Your task to perform on an android device: toggle pop-ups in chrome Image 0: 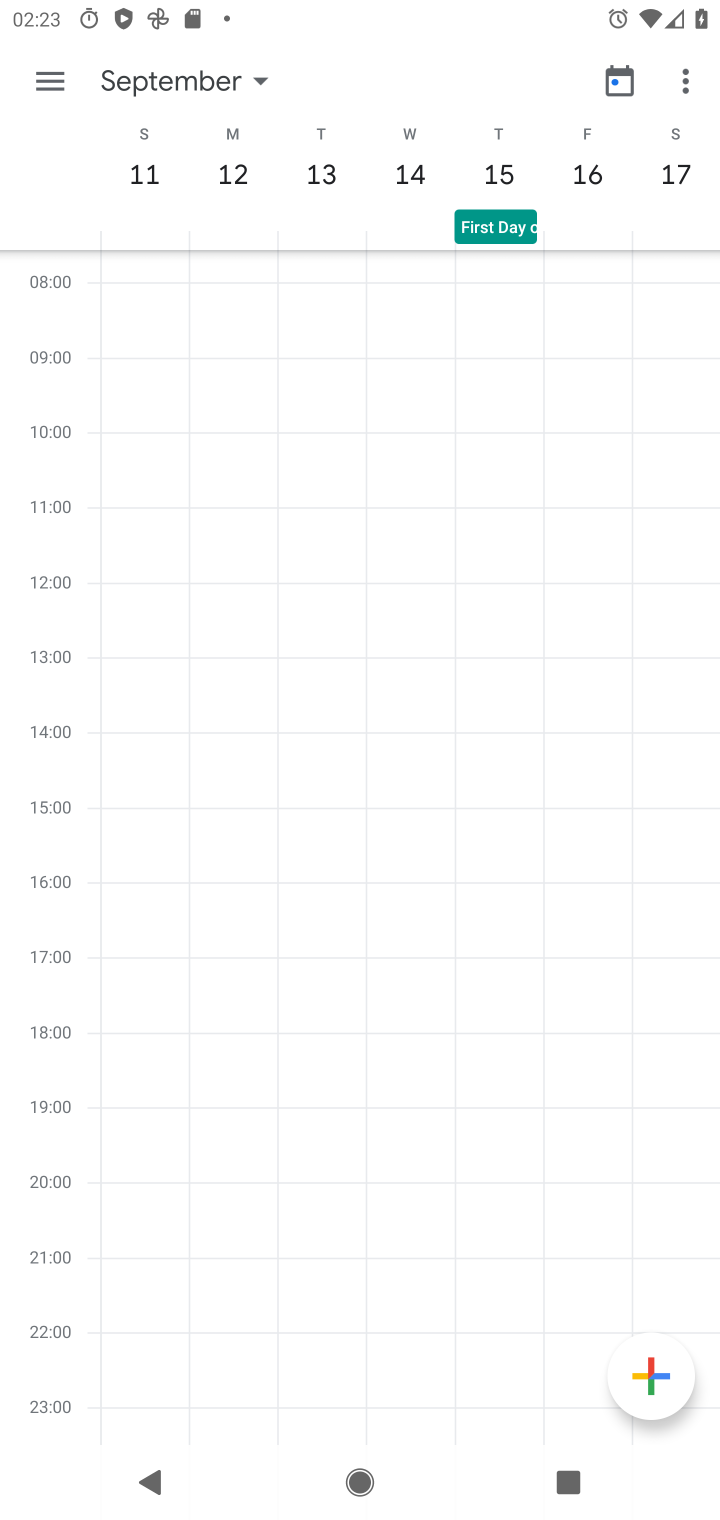
Step 0: press home button
Your task to perform on an android device: toggle pop-ups in chrome Image 1: 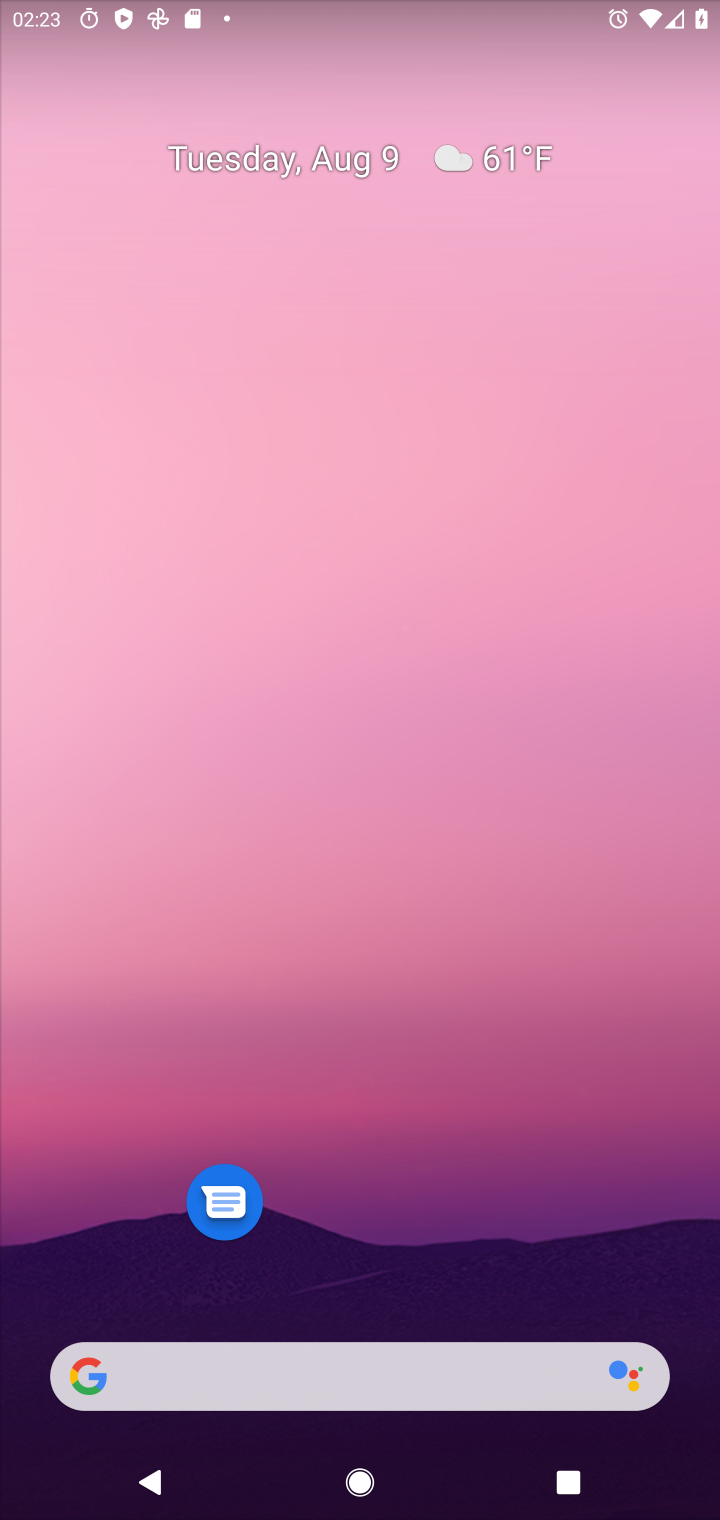
Step 1: drag from (447, 1367) to (555, 32)
Your task to perform on an android device: toggle pop-ups in chrome Image 2: 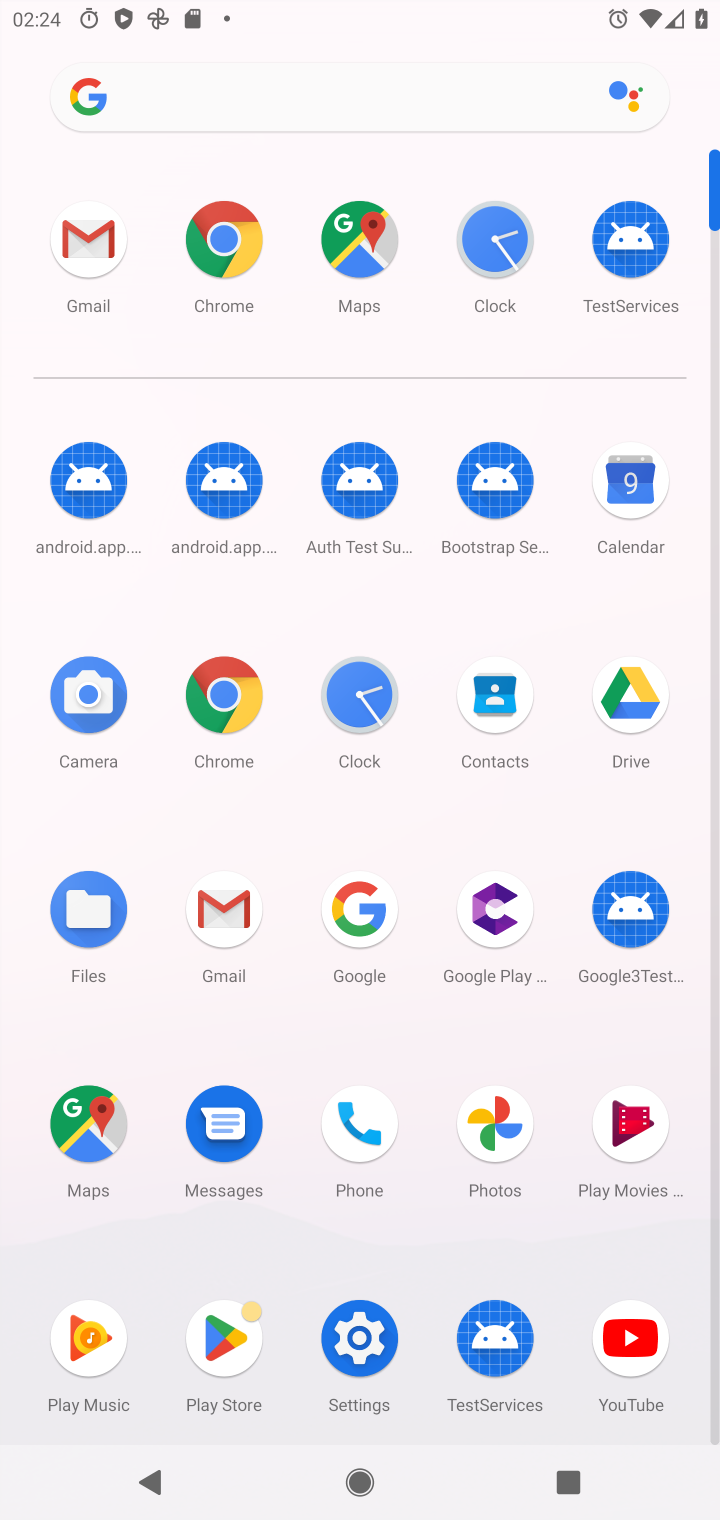
Step 2: click (223, 717)
Your task to perform on an android device: toggle pop-ups in chrome Image 3: 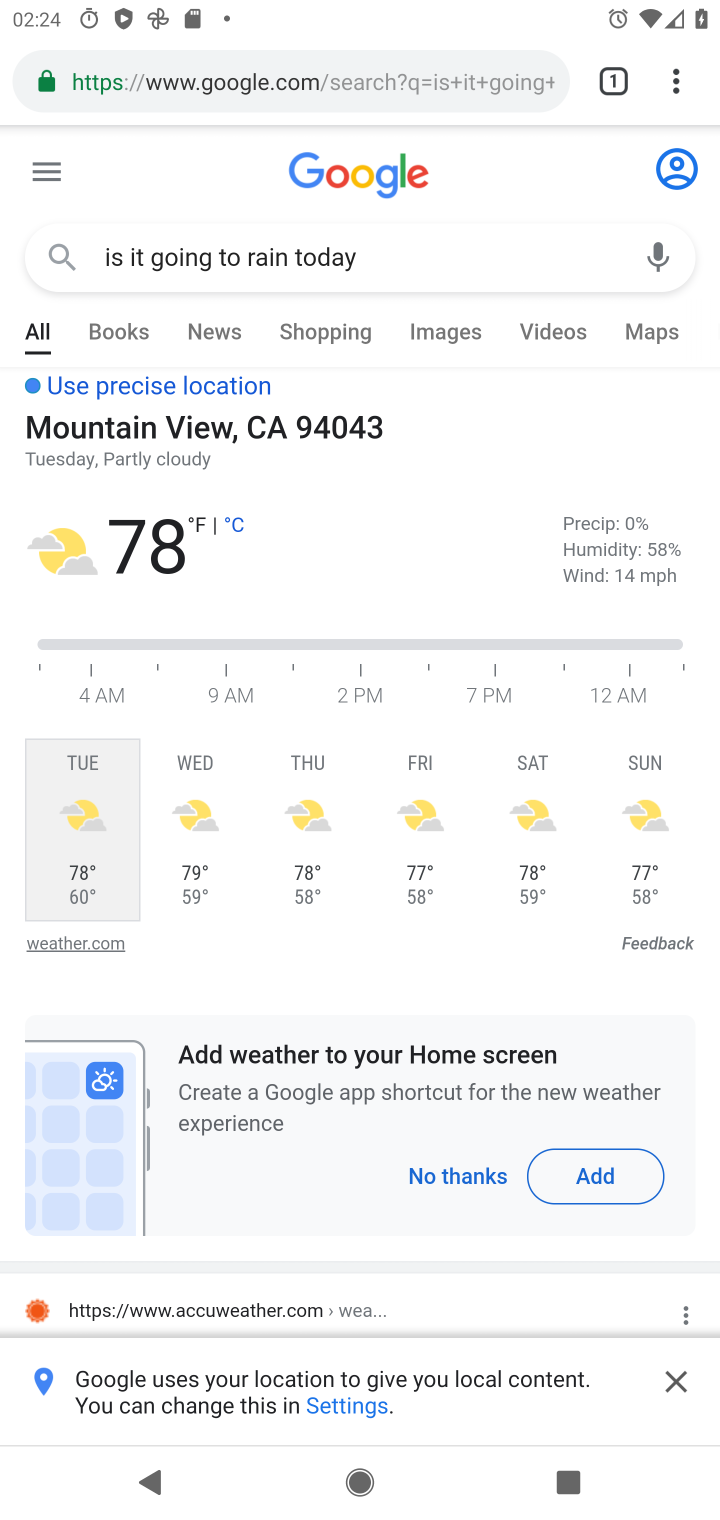
Step 3: click (666, 74)
Your task to perform on an android device: toggle pop-ups in chrome Image 4: 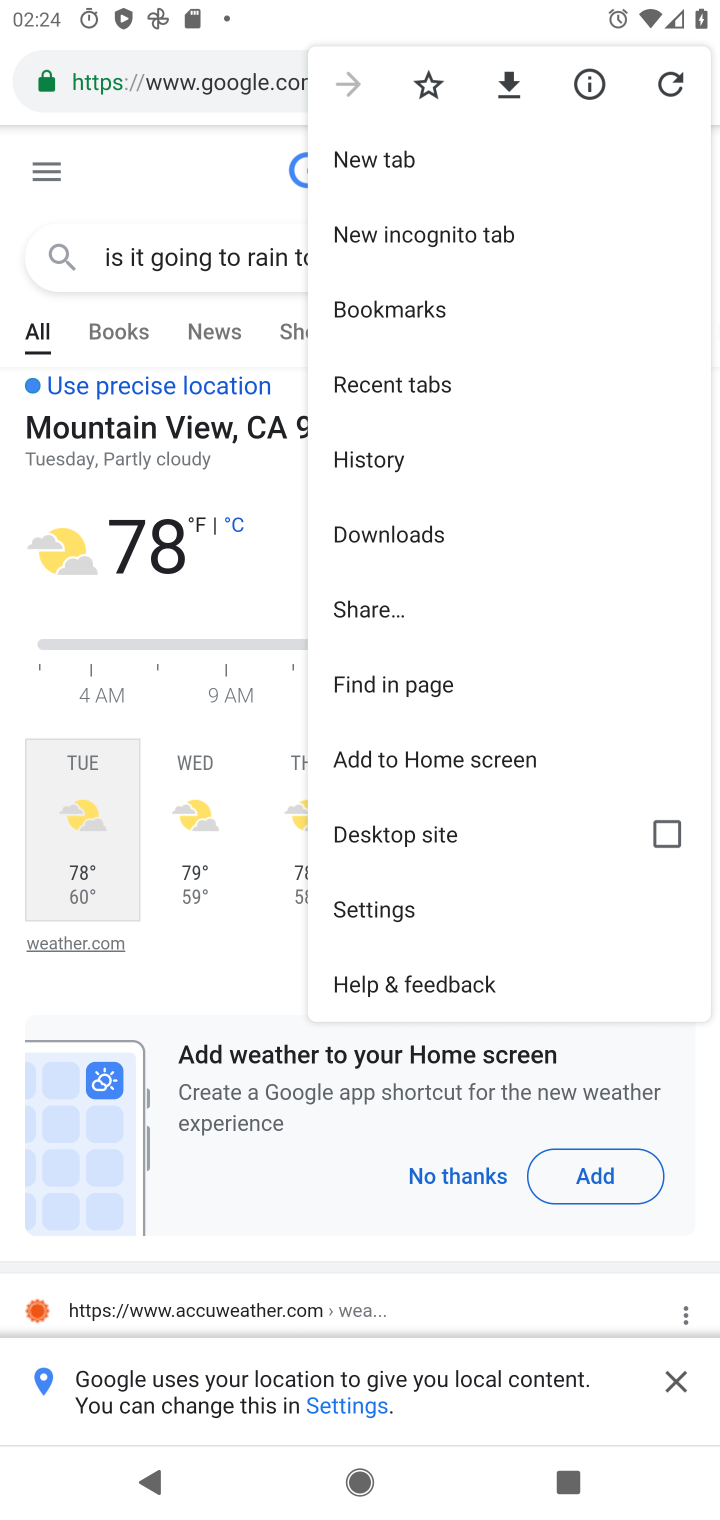
Step 4: click (421, 914)
Your task to perform on an android device: toggle pop-ups in chrome Image 5: 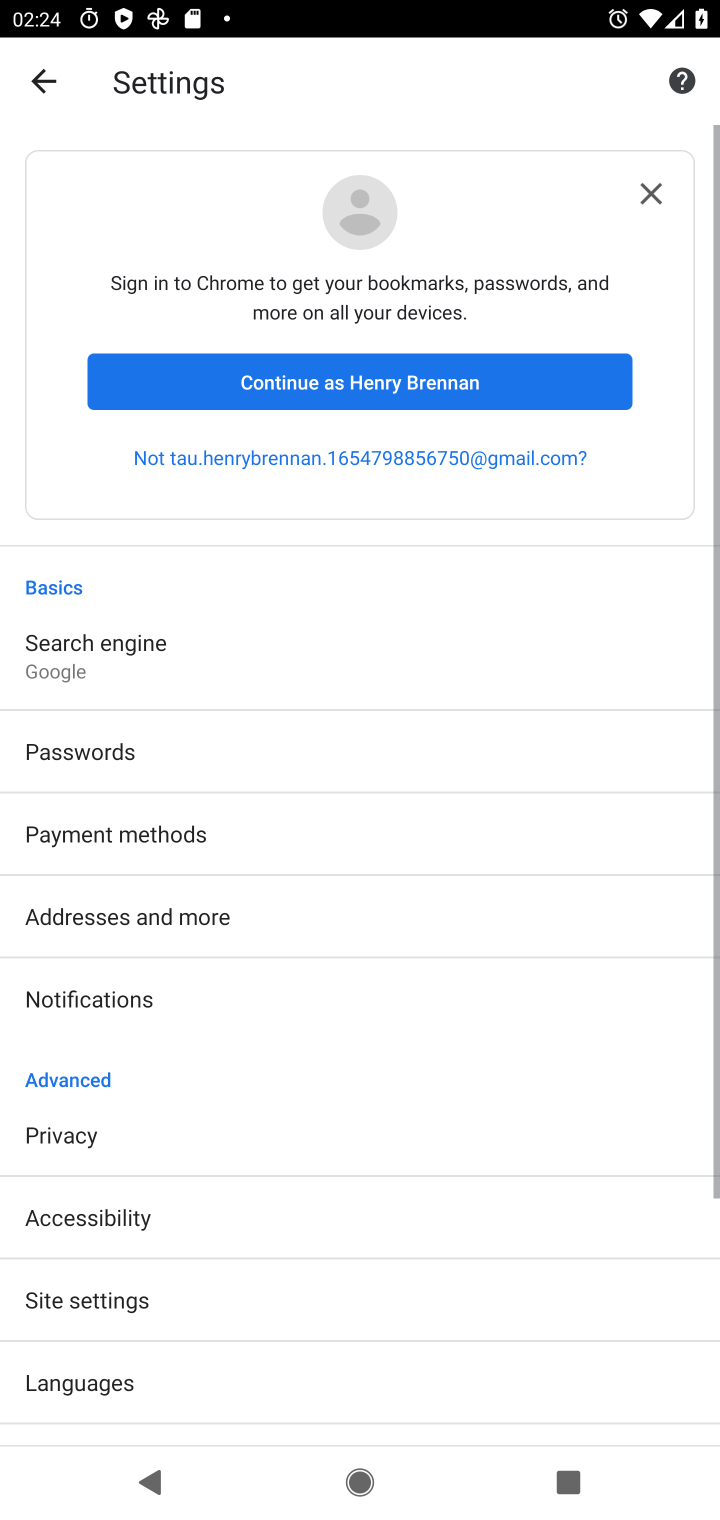
Step 5: click (225, 1301)
Your task to perform on an android device: toggle pop-ups in chrome Image 6: 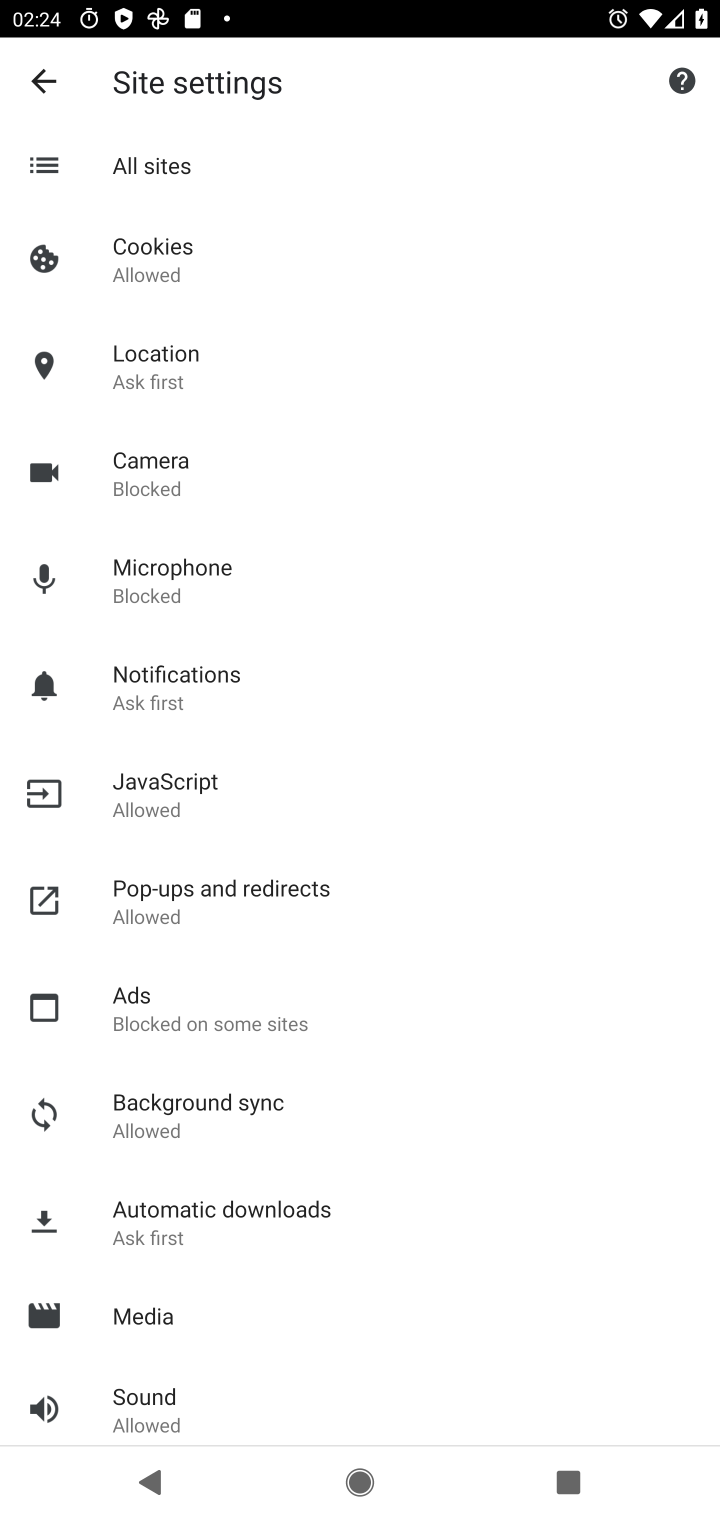
Step 6: click (244, 903)
Your task to perform on an android device: toggle pop-ups in chrome Image 7: 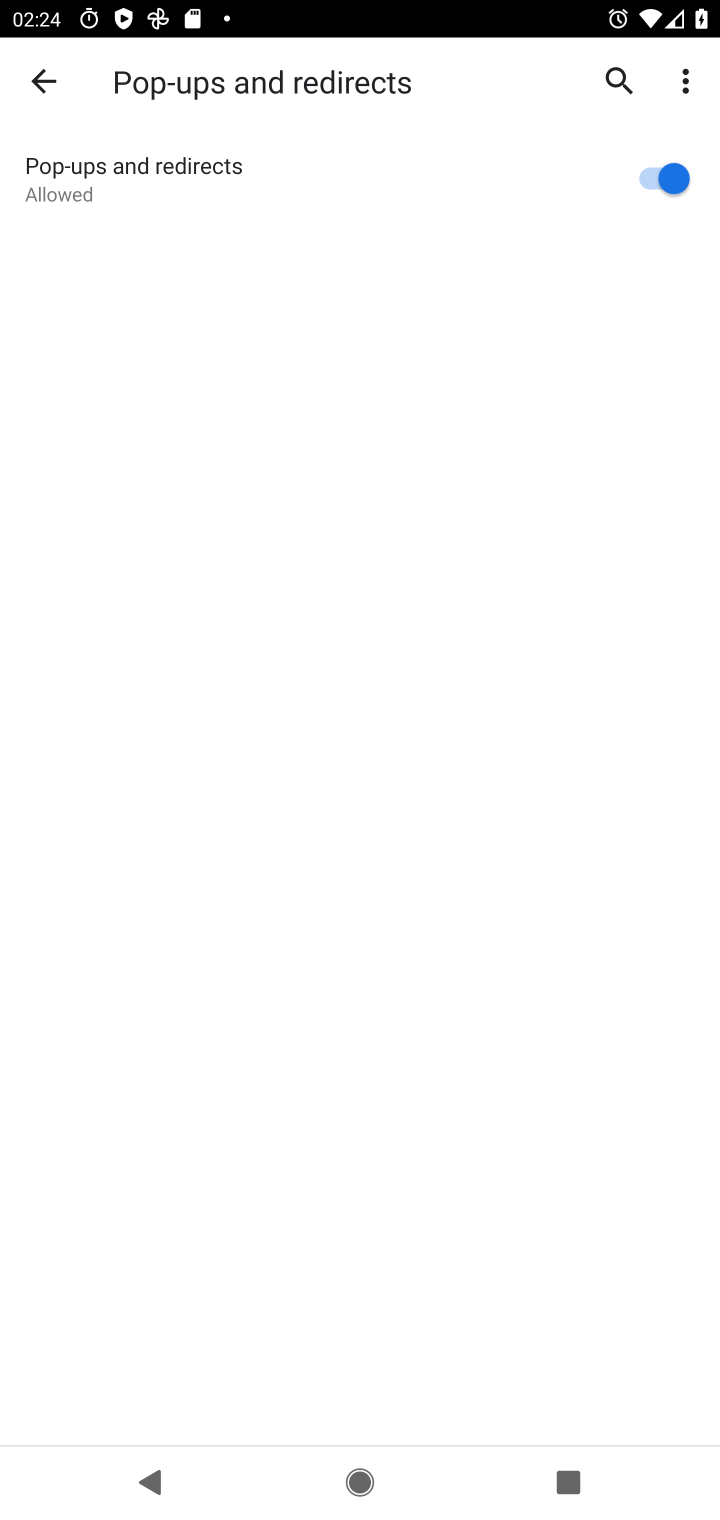
Step 7: task complete